Your task to perform on an android device: turn off translation in the chrome app Image 0: 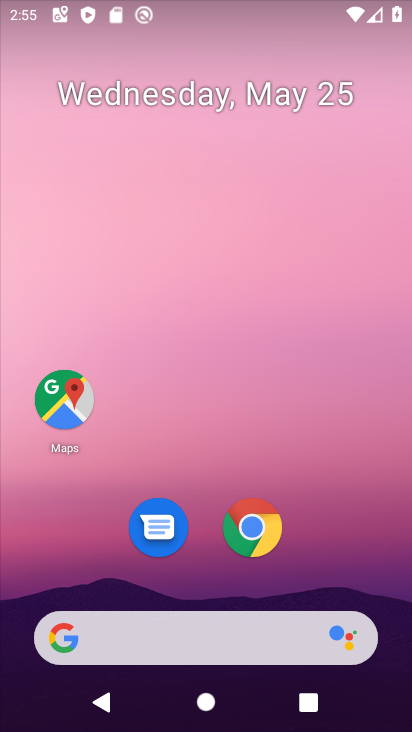
Step 0: drag from (195, 584) to (177, 91)
Your task to perform on an android device: turn off translation in the chrome app Image 1: 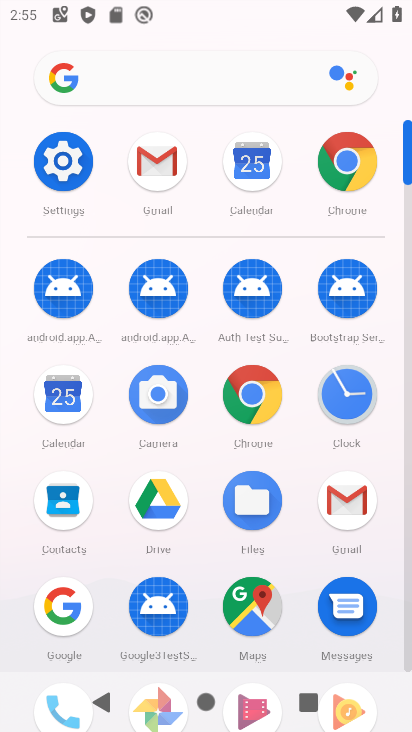
Step 1: click (250, 390)
Your task to perform on an android device: turn off translation in the chrome app Image 2: 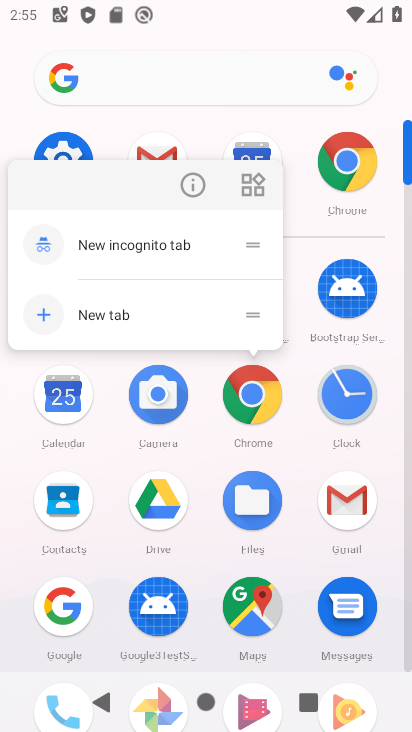
Step 2: click (185, 186)
Your task to perform on an android device: turn off translation in the chrome app Image 3: 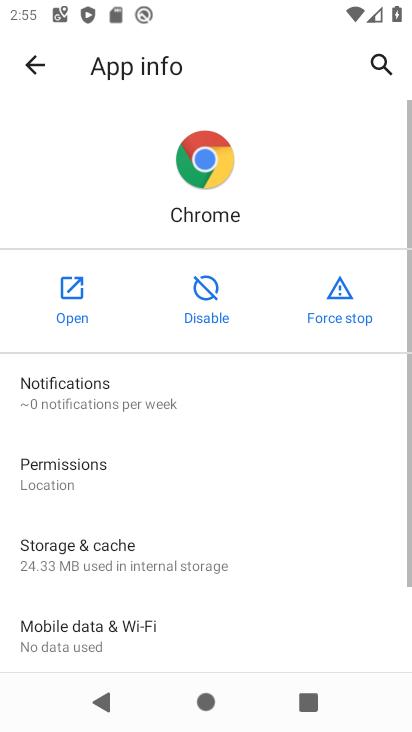
Step 3: click (47, 276)
Your task to perform on an android device: turn off translation in the chrome app Image 4: 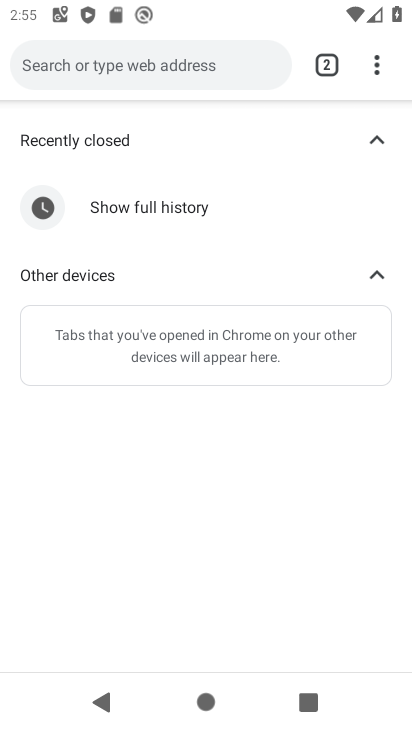
Step 4: drag from (283, 531) to (288, 283)
Your task to perform on an android device: turn off translation in the chrome app Image 5: 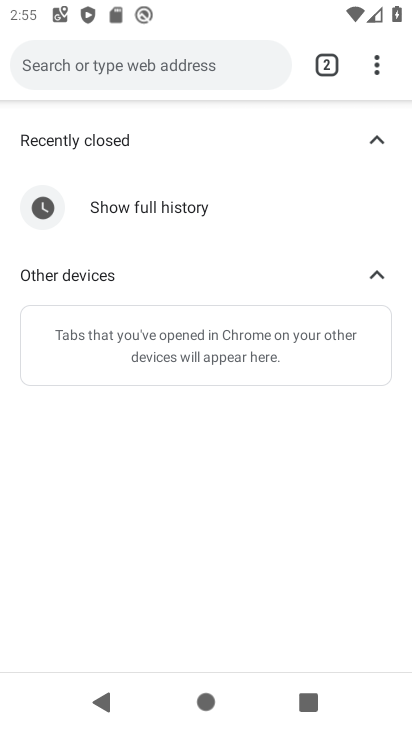
Step 5: drag from (297, 515) to (331, 249)
Your task to perform on an android device: turn off translation in the chrome app Image 6: 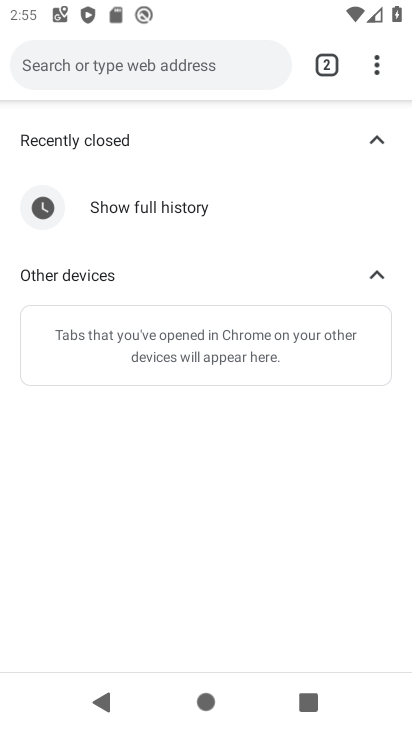
Step 6: click (377, 65)
Your task to perform on an android device: turn off translation in the chrome app Image 7: 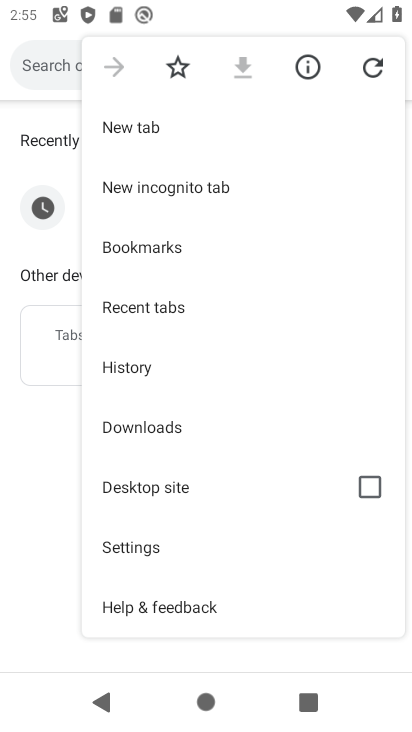
Step 7: drag from (237, 558) to (283, 160)
Your task to perform on an android device: turn off translation in the chrome app Image 8: 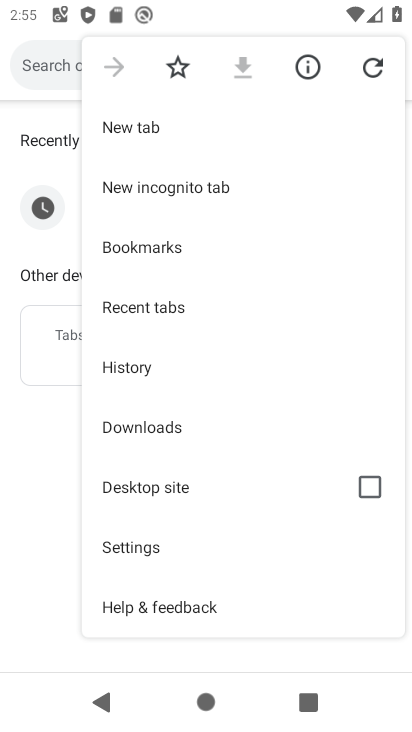
Step 8: click (134, 548)
Your task to perform on an android device: turn off translation in the chrome app Image 9: 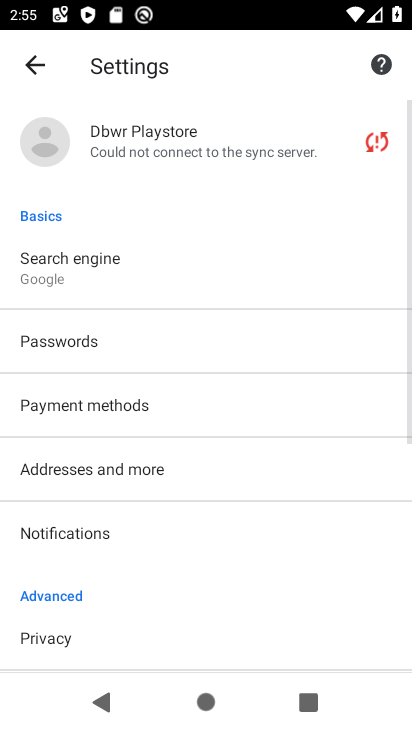
Step 9: drag from (182, 525) to (250, 203)
Your task to perform on an android device: turn off translation in the chrome app Image 10: 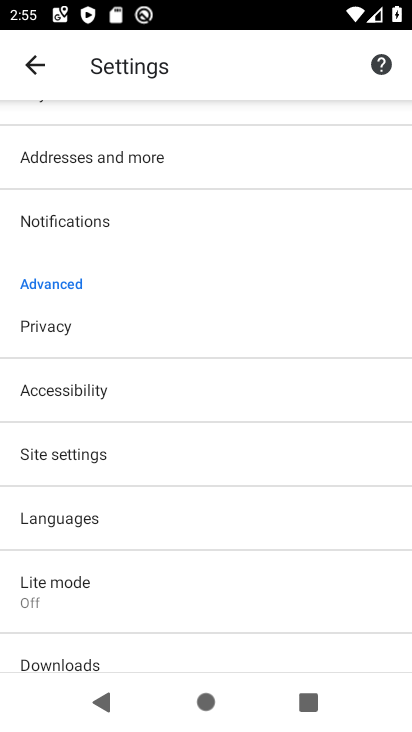
Step 10: click (116, 519)
Your task to perform on an android device: turn off translation in the chrome app Image 11: 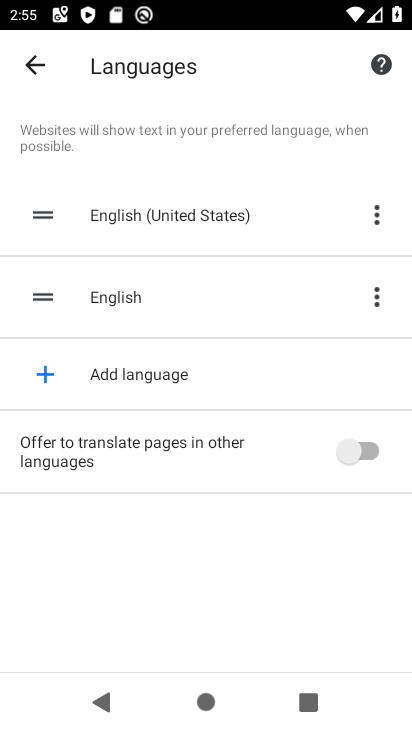
Step 11: task complete